Your task to perform on an android device: Open notification settings Image 0: 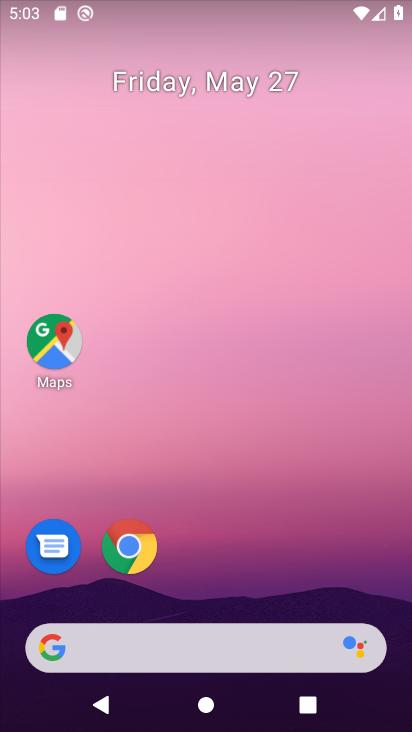
Step 0: drag from (261, 532) to (262, 0)
Your task to perform on an android device: Open notification settings Image 1: 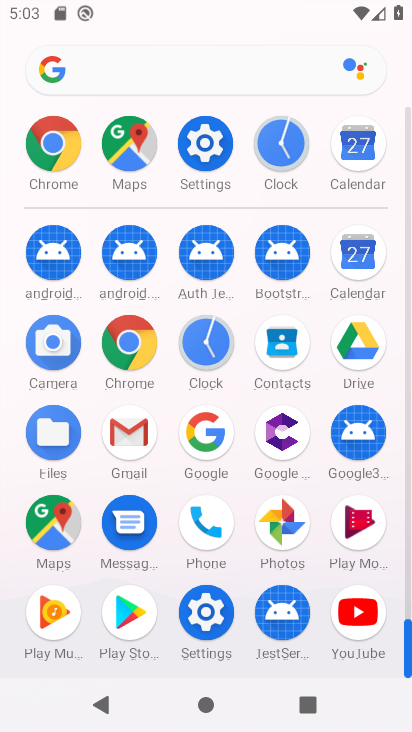
Step 1: click (204, 140)
Your task to perform on an android device: Open notification settings Image 2: 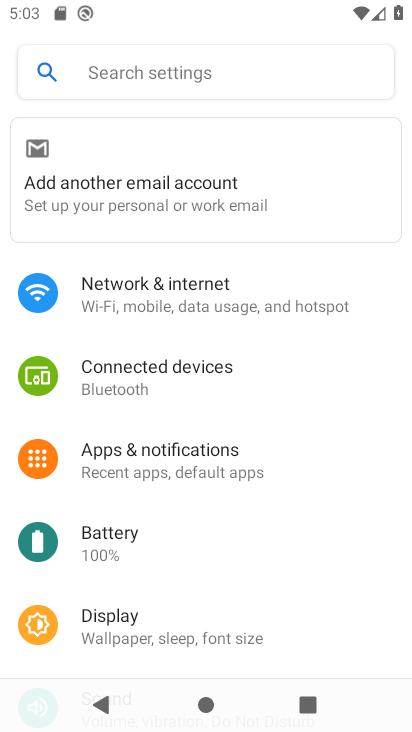
Step 2: drag from (289, 581) to (333, 165)
Your task to perform on an android device: Open notification settings Image 3: 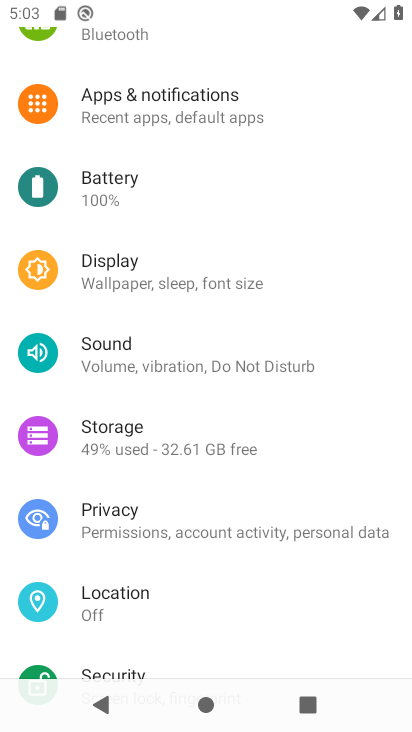
Step 3: click (201, 96)
Your task to perform on an android device: Open notification settings Image 4: 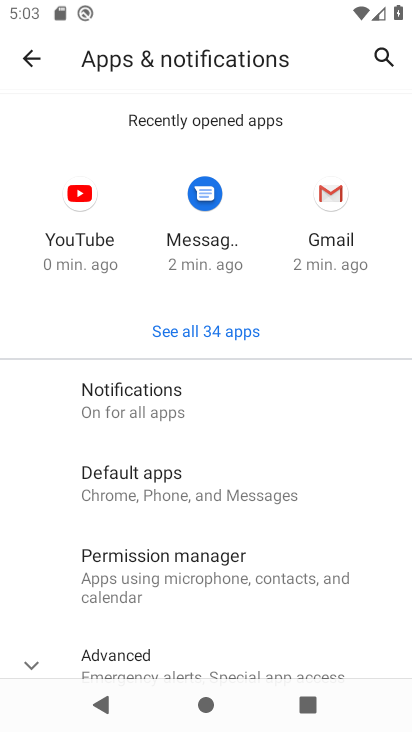
Step 4: click (30, 654)
Your task to perform on an android device: Open notification settings Image 5: 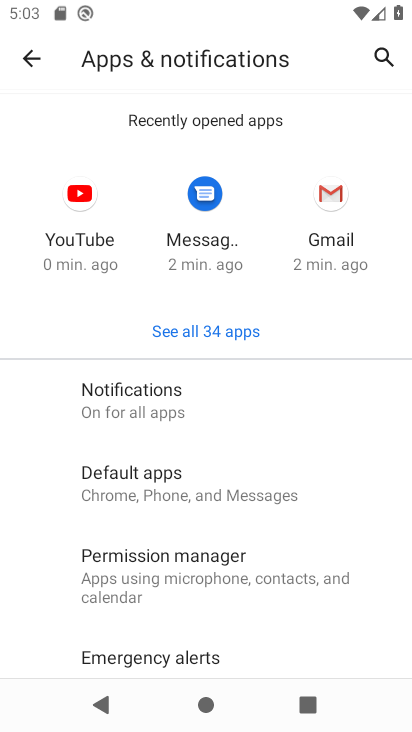
Step 5: click (223, 384)
Your task to perform on an android device: Open notification settings Image 6: 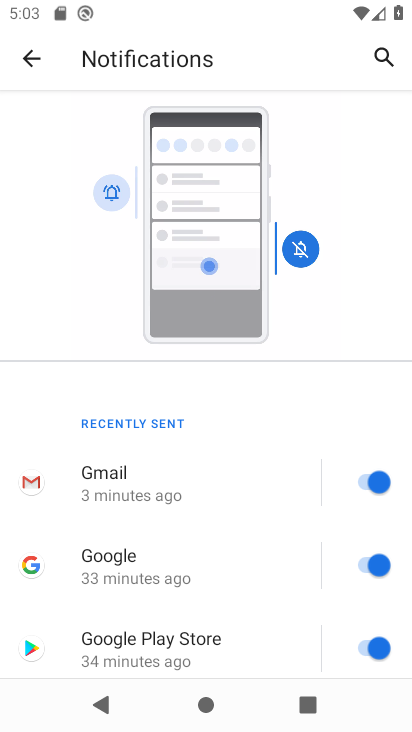
Step 6: drag from (220, 592) to (266, 167)
Your task to perform on an android device: Open notification settings Image 7: 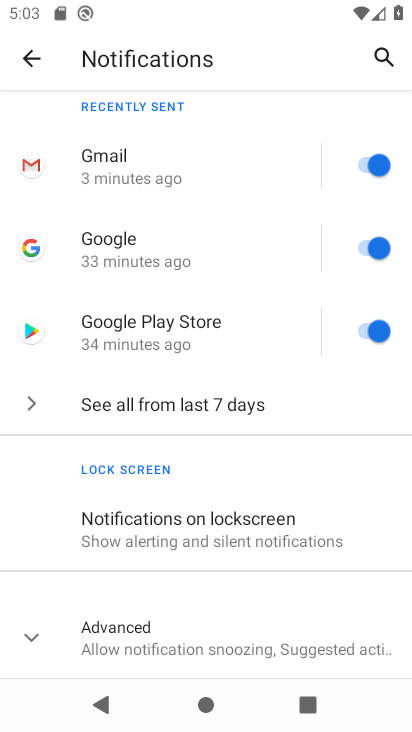
Step 7: drag from (261, 553) to (252, 190)
Your task to perform on an android device: Open notification settings Image 8: 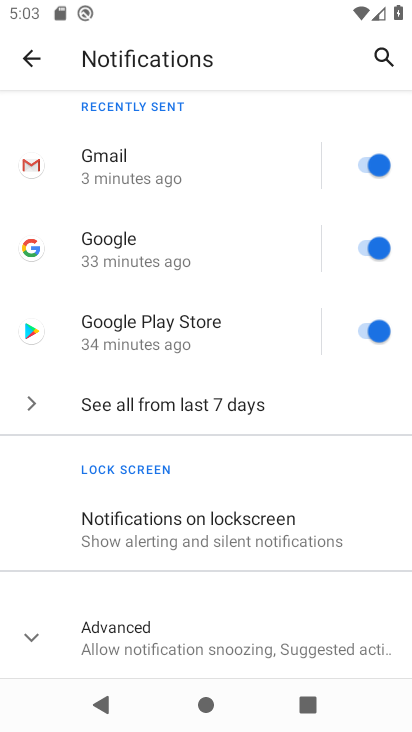
Step 8: click (22, 624)
Your task to perform on an android device: Open notification settings Image 9: 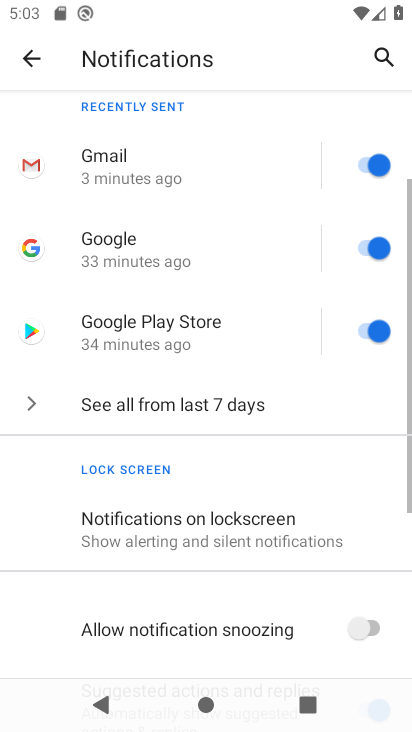
Step 9: task complete